Your task to perform on an android device: Open network settings Image 0: 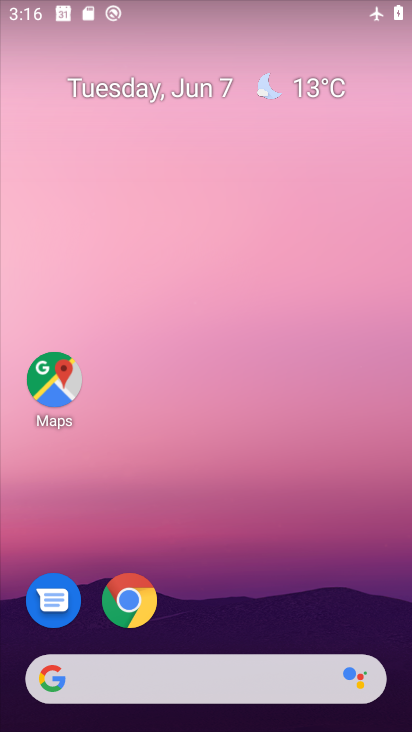
Step 0: drag from (289, 548) to (233, 80)
Your task to perform on an android device: Open network settings Image 1: 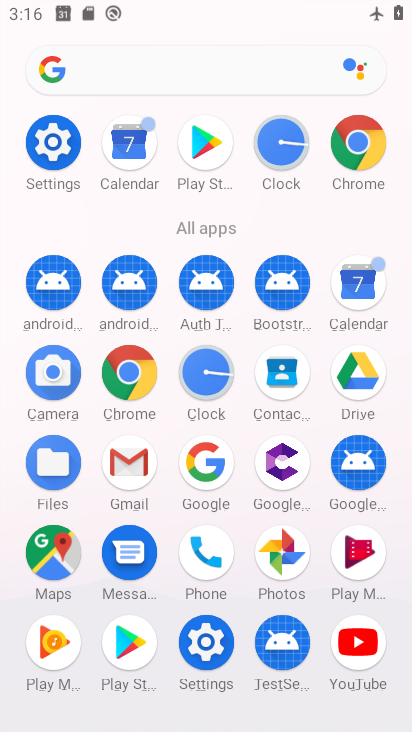
Step 1: click (68, 134)
Your task to perform on an android device: Open network settings Image 2: 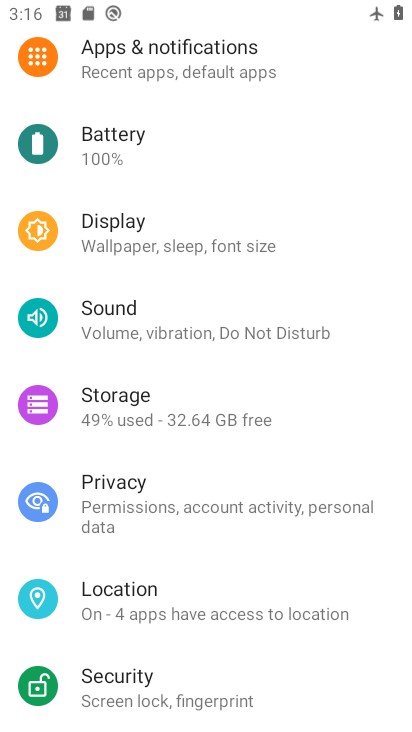
Step 2: drag from (275, 193) to (276, 707)
Your task to perform on an android device: Open network settings Image 3: 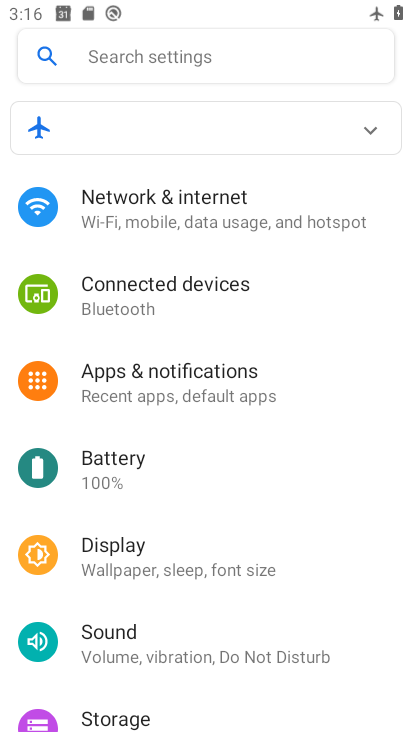
Step 3: click (178, 234)
Your task to perform on an android device: Open network settings Image 4: 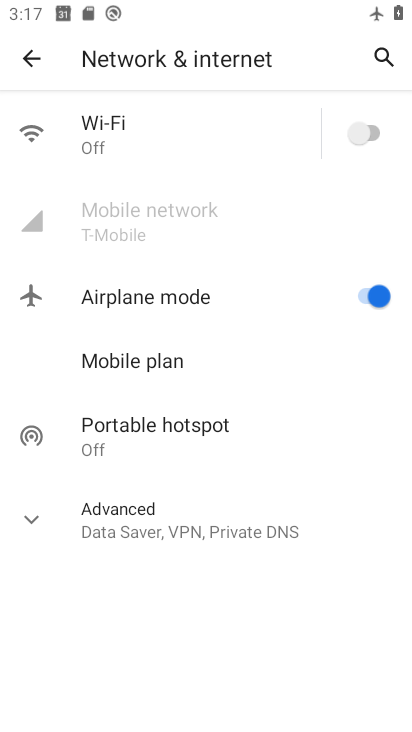
Step 4: task complete